Your task to perform on an android device: see creations saved in the google photos Image 0: 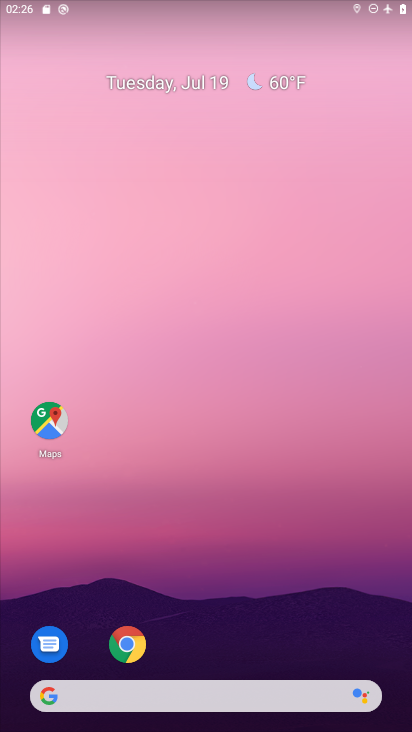
Step 0: drag from (248, 617) to (226, 6)
Your task to perform on an android device: see creations saved in the google photos Image 1: 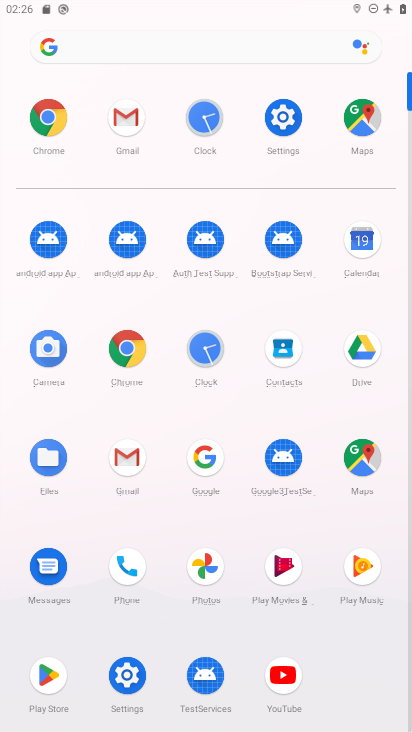
Step 1: click (213, 563)
Your task to perform on an android device: see creations saved in the google photos Image 2: 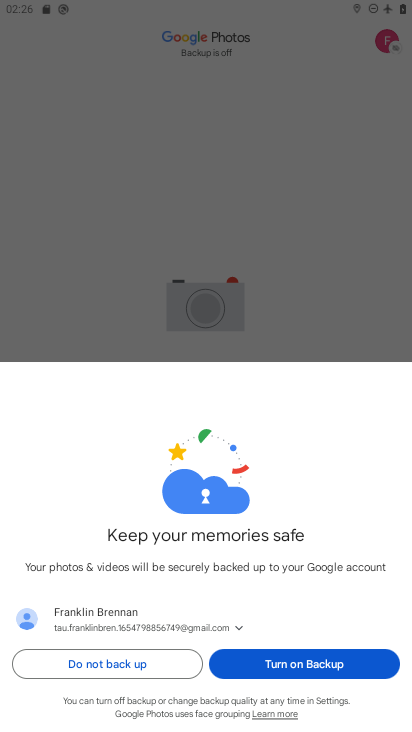
Step 2: click (178, 252)
Your task to perform on an android device: see creations saved in the google photos Image 3: 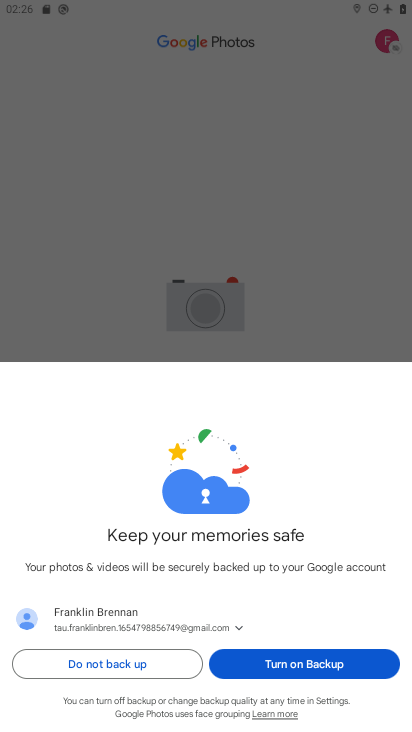
Step 3: drag from (154, 661) to (192, 404)
Your task to perform on an android device: see creations saved in the google photos Image 4: 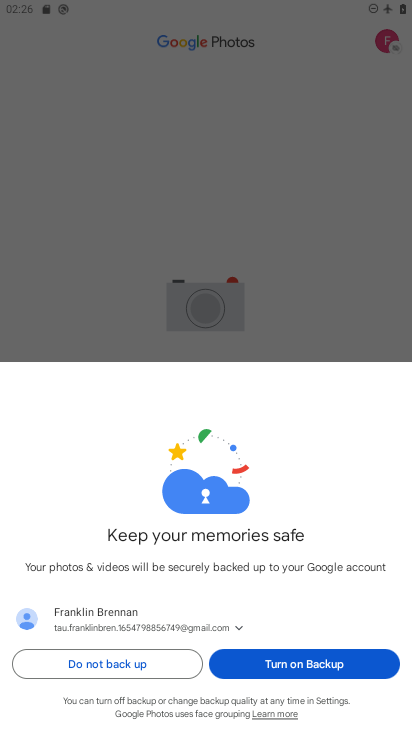
Step 4: click (320, 652)
Your task to perform on an android device: see creations saved in the google photos Image 5: 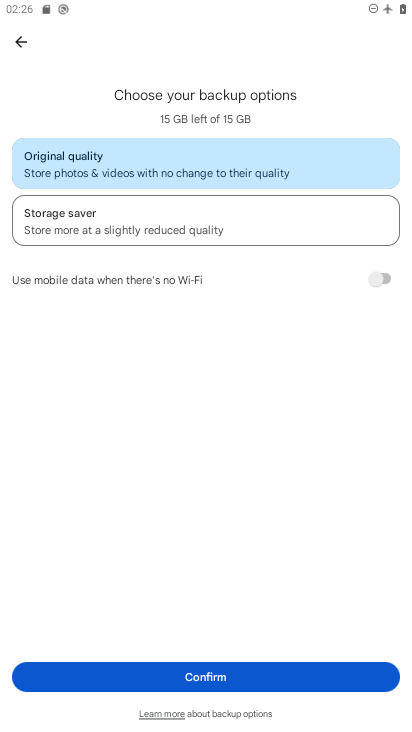
Step 5: click (280, 685)
Your task to perform on an android device: see creations saved in the google photos Image 6: 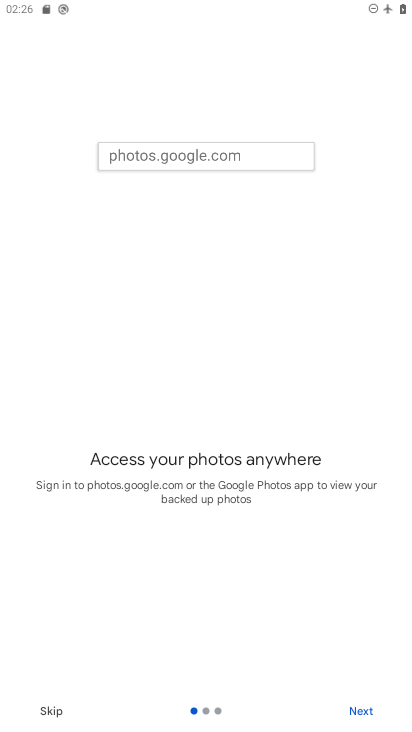
Step 6: click (182, 163)
Your task to perform on an android device: see creations saved in the google photos Image 7: 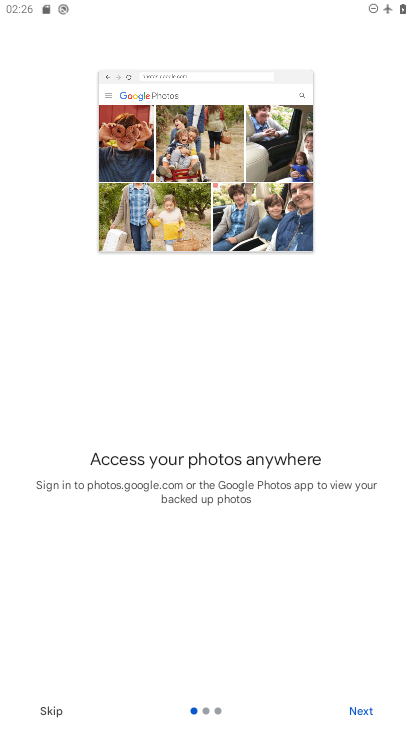
Step 7: click (58, 701)
Your task to perform on an android device: see creations saved in the google photos Image 8: 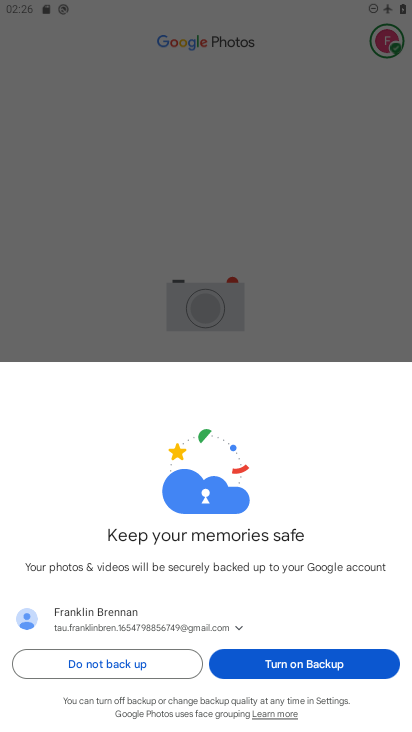
Step 8: click (96, 650)
Your task to perform on an android device: see creations saved in the google photos Image 9: 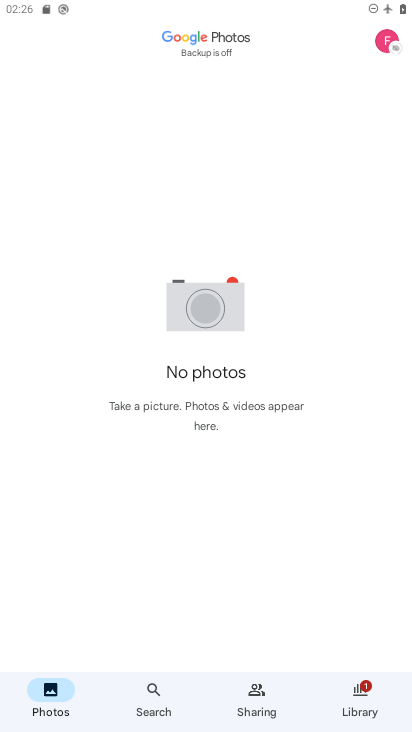
Step 9: click (120, 16)
Your task to perform on an android device: see creations saved in the google photos Image 10: 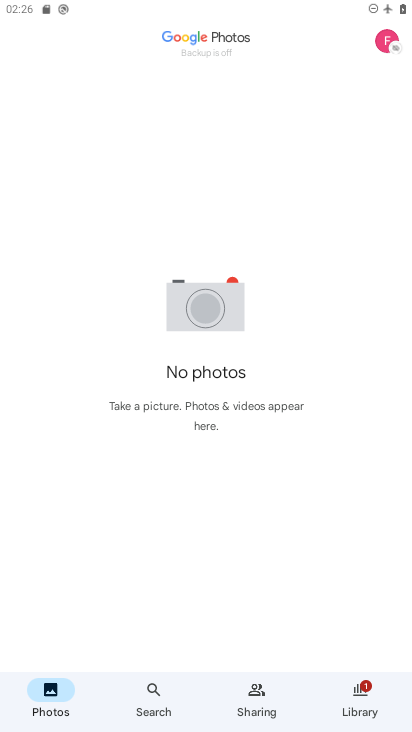
Step 10: task complete